Your task to perform on an android device: turn off priority inbox in the gmail app Image 0: 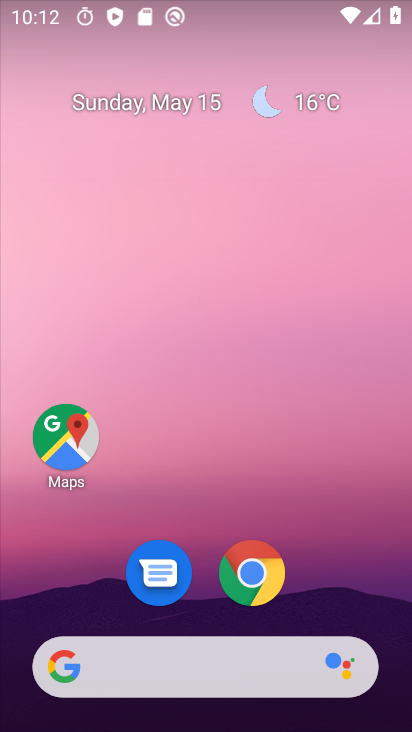
Step 0: drag from (290, 591) to (221, 205)
Your task to perform on an android device: turn off priority inbox in the gmail app Image 1: 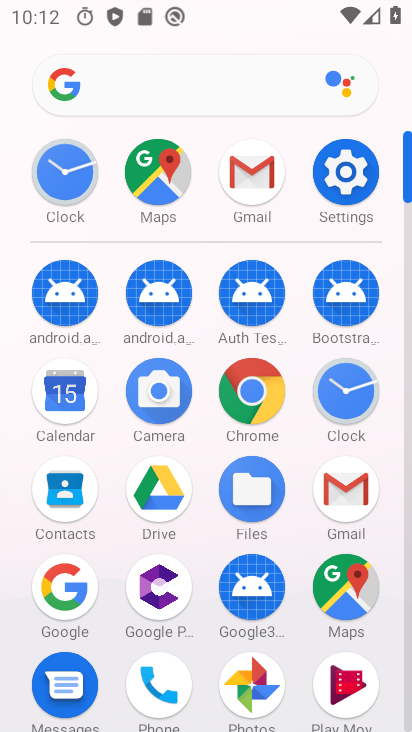
Step 1: click (257, 201)
Your task to perform on an android device: turn off priority inbox in the gmail app Image 2: 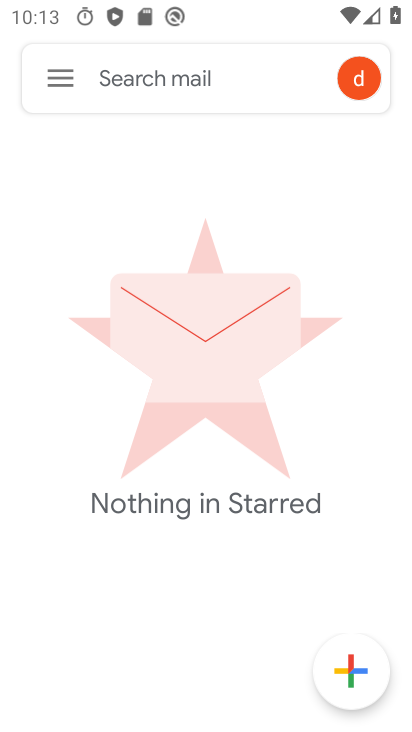
Step 2: click (60, 78)
Your task to perform on an android device: turn off priority inbox in the gmail app Image 3: 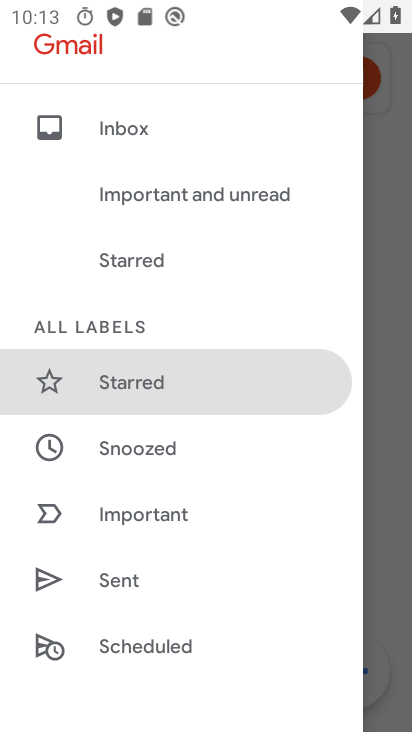
Step 3: drag from (136, 570) to (82, 232)
Your task to perform on an android device: turn off priority inbox in the gmail app Image 4: 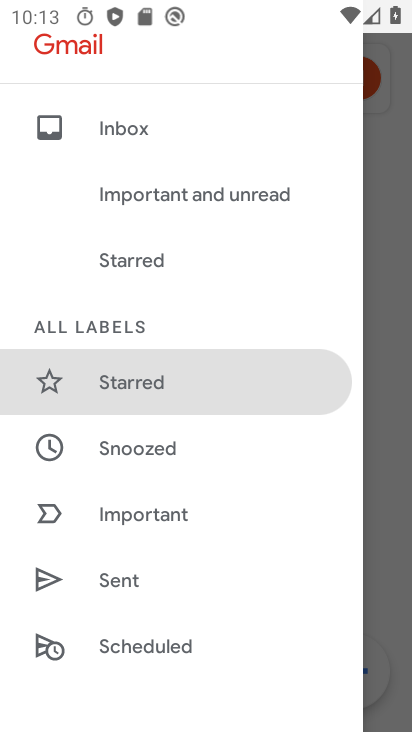
Step 4: drag from (195, 659) to (233, 222)
Your task to perform on an android device: turn off priority inbox in the gmail app Image 5: 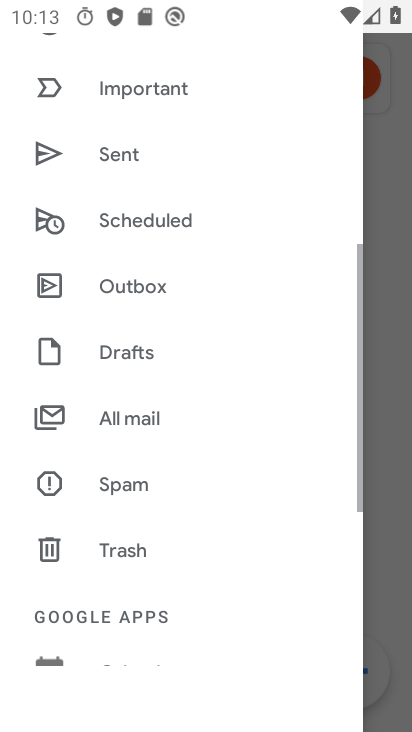
Step 5: drag from (120, 618) to (177, 287)
Your task to perform on an android device: turn off priority inbox in the gmail app Image 6: 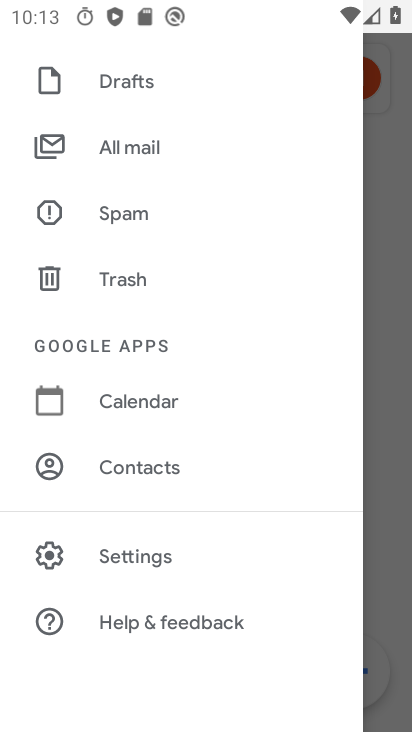
Step 6: click (132, 559)
Your task to perform on an android device: turn off priority inbox in the gmail app Image 7: 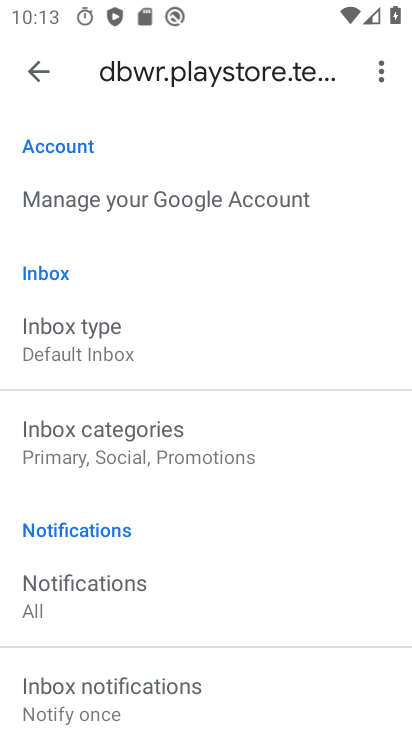
Step 7: click (63, 360)
Your task to perform on an android device: turn off priority inbox in the gmail app Image 8: 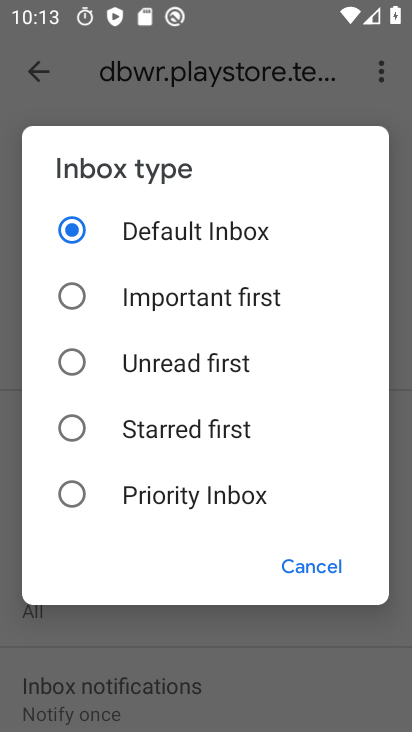
Step 8: task complete